Your task to perform on an android device: turn off improve location accuracy Image 0: 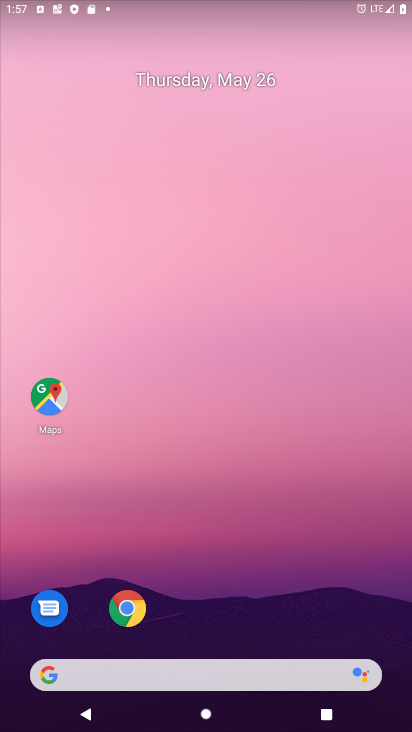
Step 0: drag from (389, 638) to (292, 231)
Your task to perform on an android device: turn off improve location accuracy Image 1: 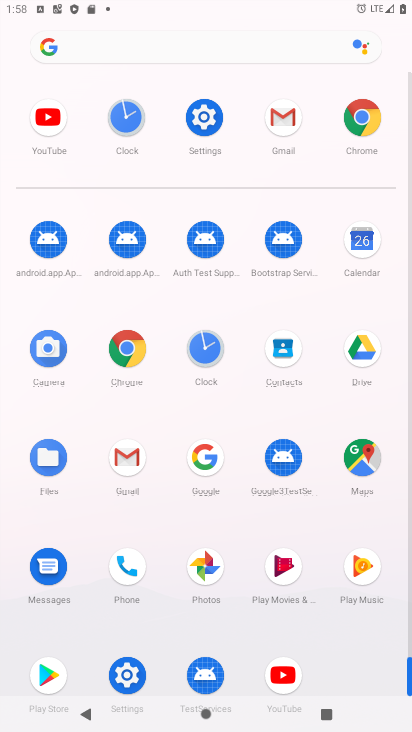
Step 1: click (127, 675)
Your task to perform on an android device: turn off improve location accuracy Image 2: 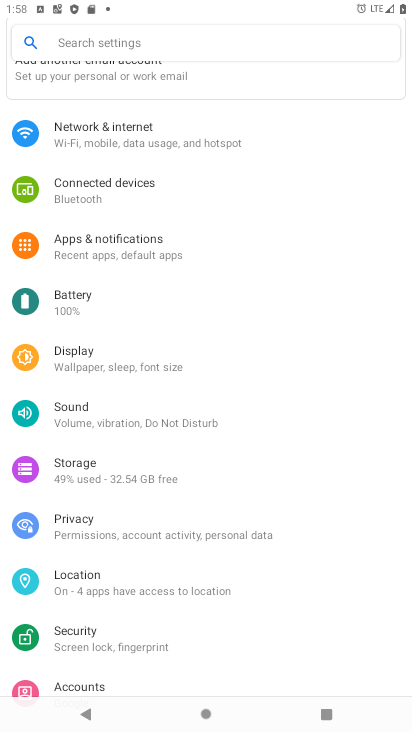
Step 2: click (77, 568)
Your task to perform on an android device: turn off improve location accuracy Image 3: 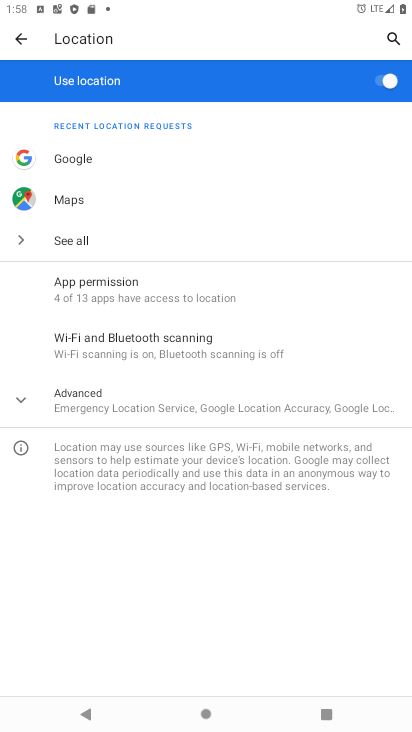
Step 3: click (21, 400)
Your task to perform on an android device: turn off improve location accuracy Image 4: 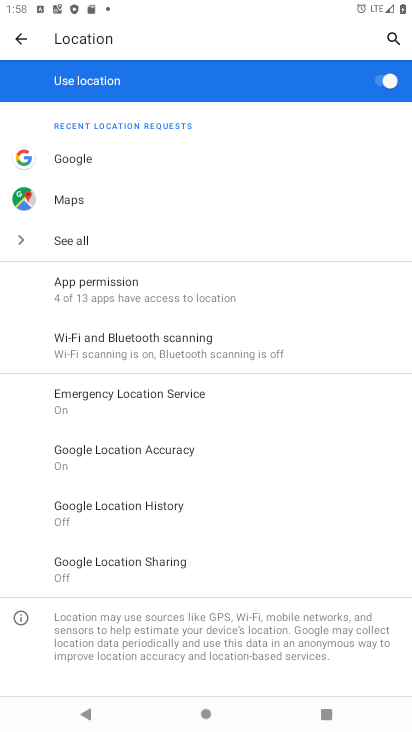
Step 4: click (144, 446)
Your task to perform on an android device: turn off improve location accuracy Image 5: 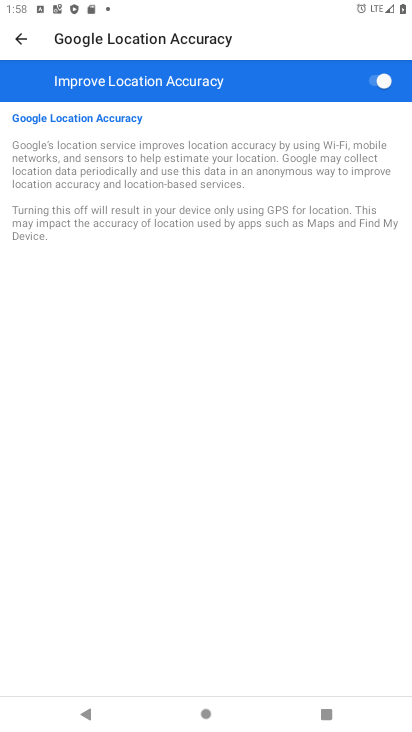
Step 5: click (373, 80)
Your task to perform on an android device: turn off improve location accuracy Image 6: 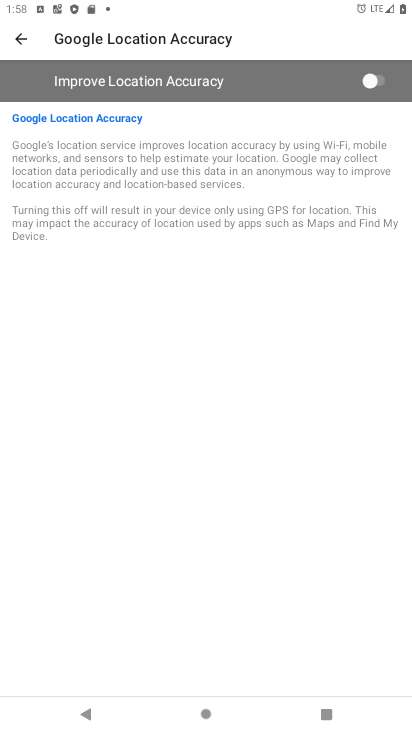
Step 6: task complete